Your task to perform on an android device: change alarm snooze length Image 0: 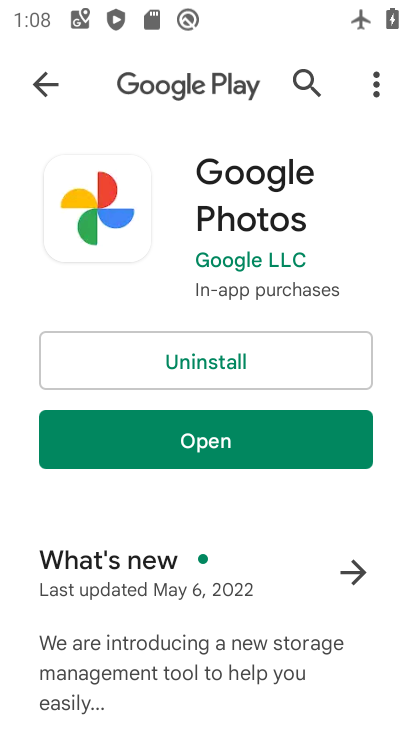
Step 0: press home button
Your task to perform on an android device: change alarm snooze length Image 1: 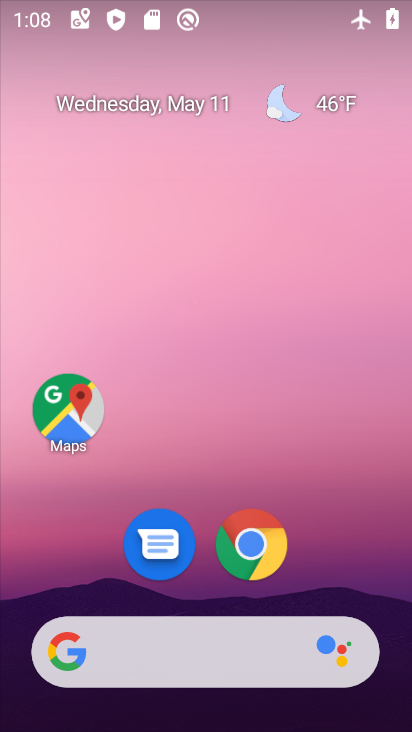
Step 1: drag from (396, 624) to (275, 80)
Your task to perform on an android device: change alarm snooze length Image 2: 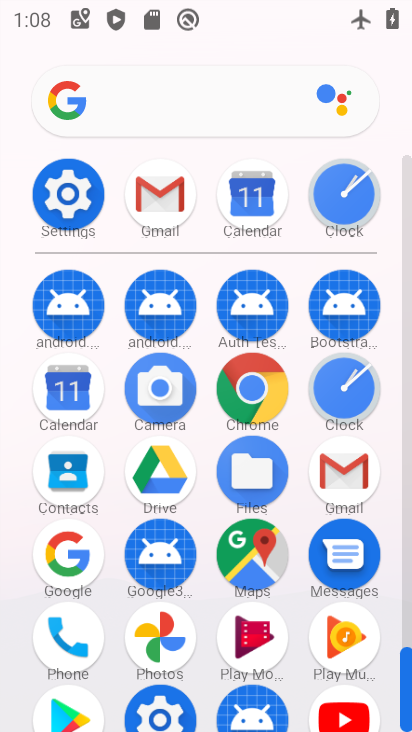
Step 2: click (342, 387)
Your task to perform on an android device: change alarm snooze length Image 3: 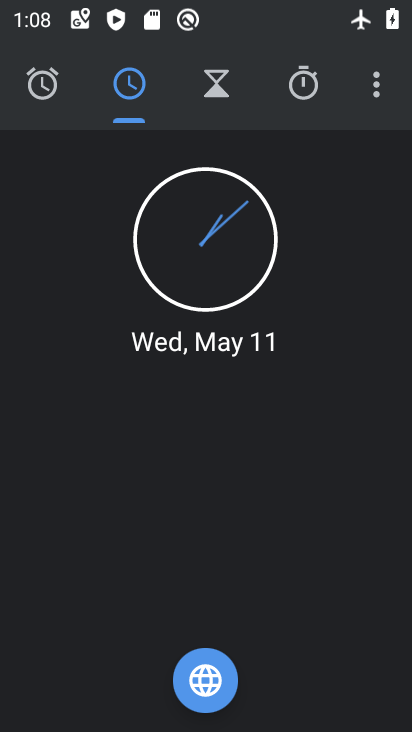
Step 3: click (374, 92)
Your task to perform on an android device: change alarm snooze length Image 4: 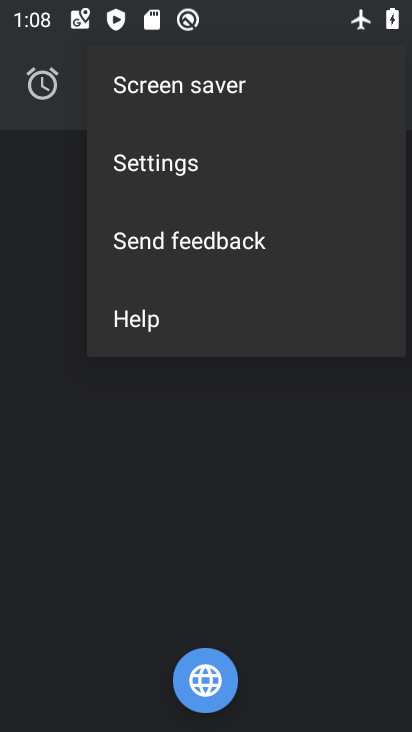
Step 4: click (163, 158)
Your task to perform on an android device: change alarm snooze length Image 5: 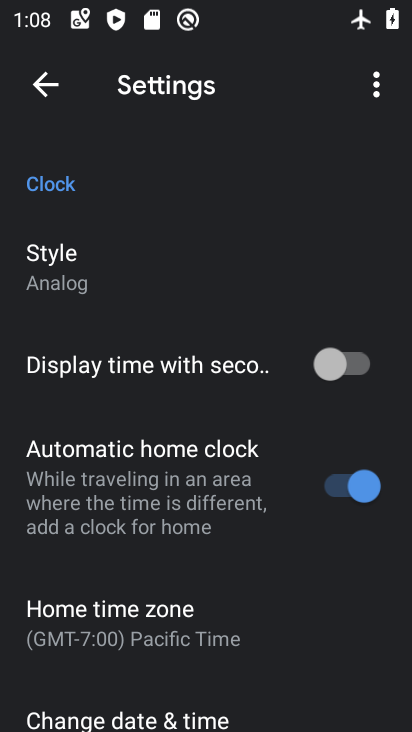
Step 5: drag from (303, 645) to (280, 209)
Your task to perform on an android device: change alarm snooze length Image 6: 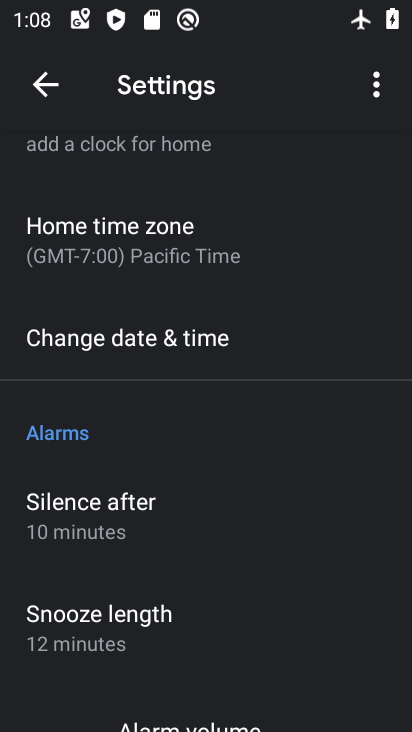
Step 6: click (67, 613)
Your task to perform on an android device: change alarm snooze length Image 7: 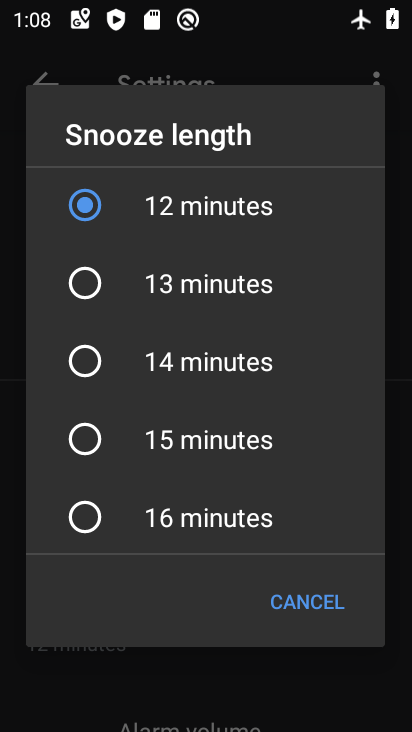
Step 7: drag from (225, 198) to (239, 433)
Your task to perform on an android device: change alarm snooze length Image 8: 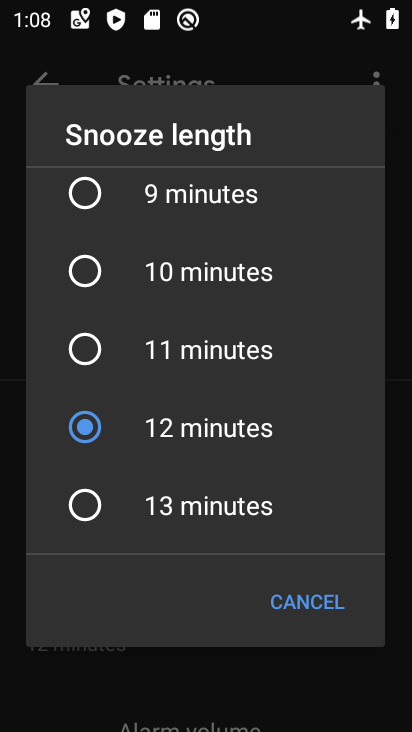
Step 8: click (84, 273)
Your task to perform on an android device: change alarm snooze length Image 9: 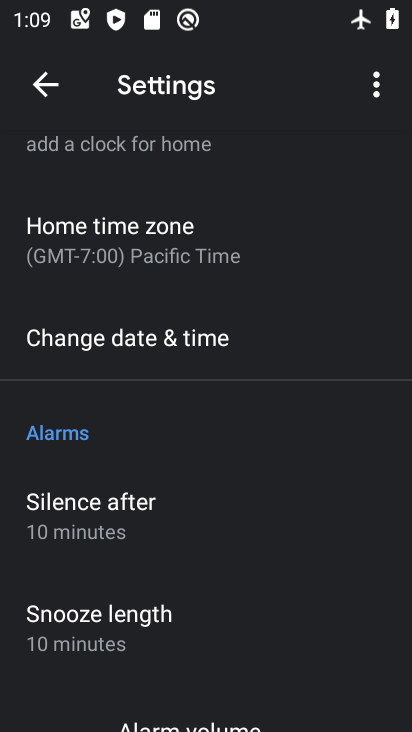
Step 9: task complete